Your task to perform on an android device: Search for pizza restaurants on Maps Image 0: 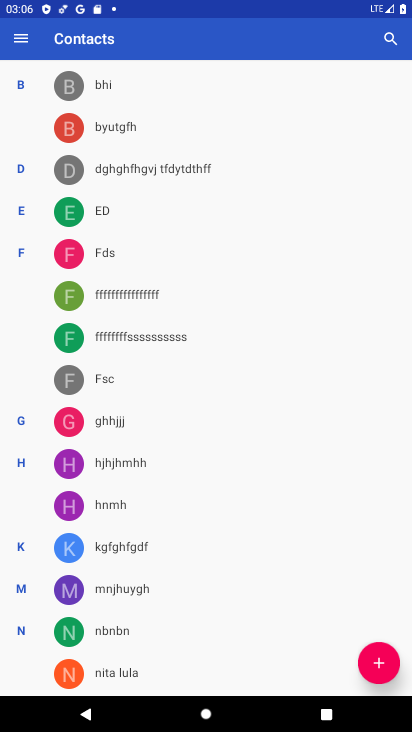
Step 0: press home button
Your task to perform on an android device: Search for pizza restaurants on Maps Image 1: 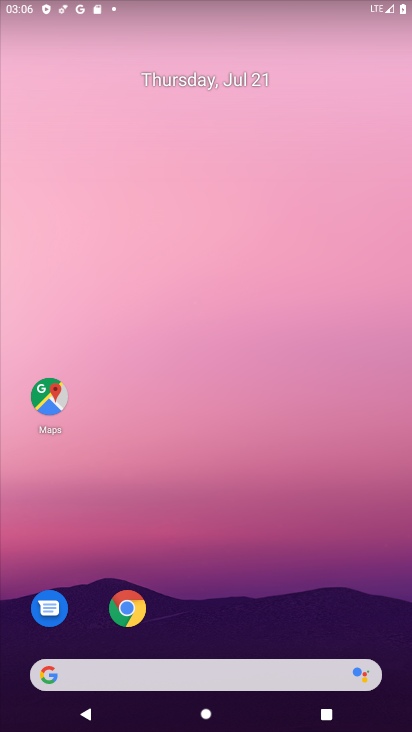
Step 1: drag from (194, 644) to (102, 80)
Your task to perform on an android device: Search for pizza restaurants on Maps Image 2: 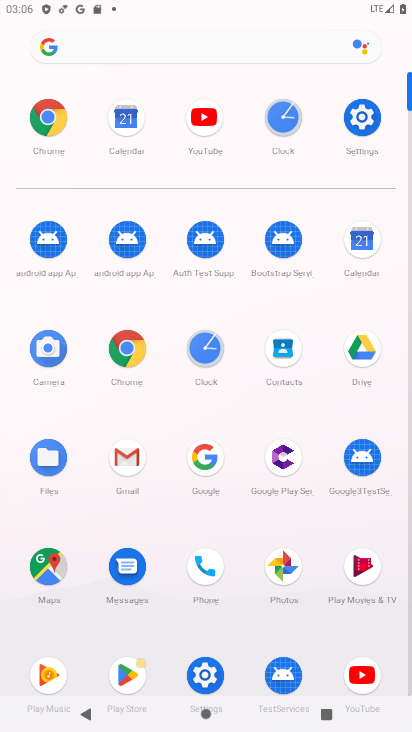
Step 2: click (45, 576)
Your task to perform on an android device: Search for pizza restaurants on Maps Image 3: 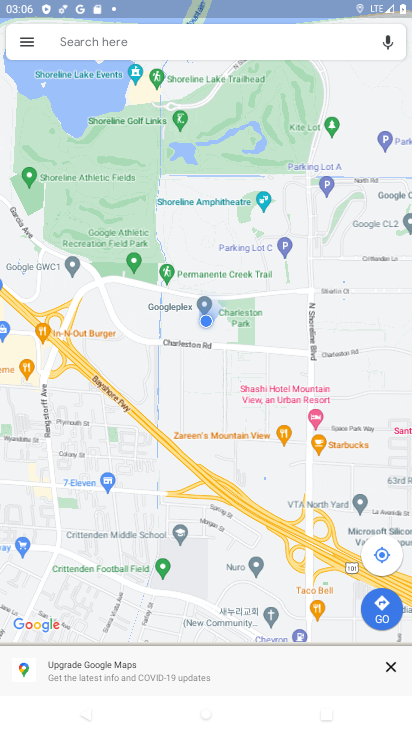
Step 3: click (261, 43)
Your task to perform on an android device: Search for pizza restaurants on Maps Image 4: 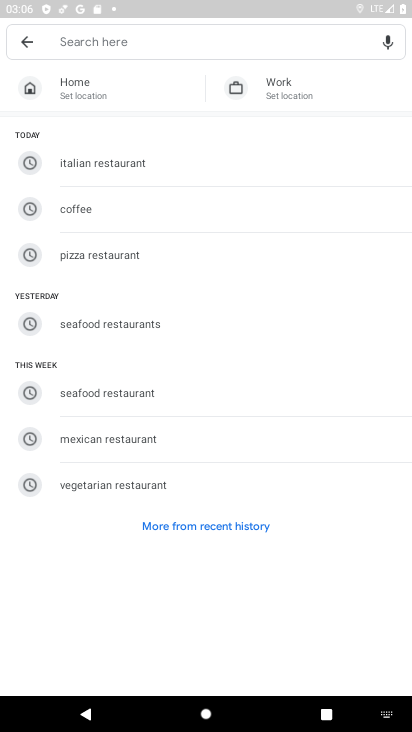
Step 4: click (84, 259)
Your task to perform on an android device: Search for pizza restaurants on Maps Image 5: 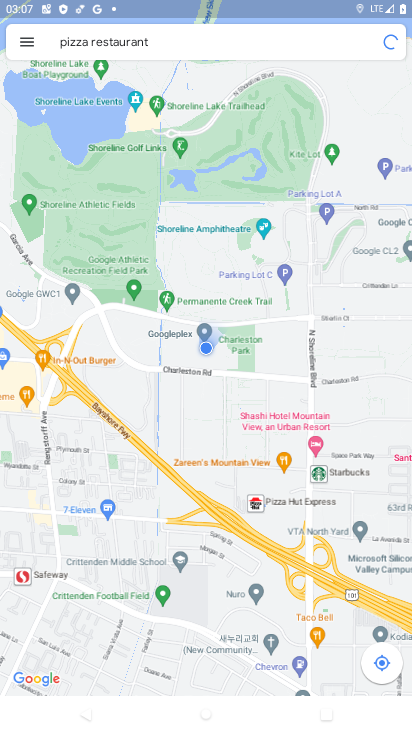
Step 5: task complete